Your task to perform on an android device: Open my contact list Image 0: 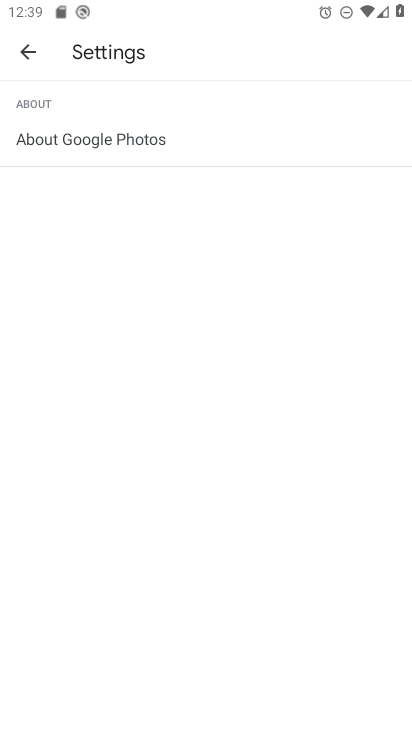
Step 0: press home button
Your task to perform on an android device: Open my contact list Image 1: 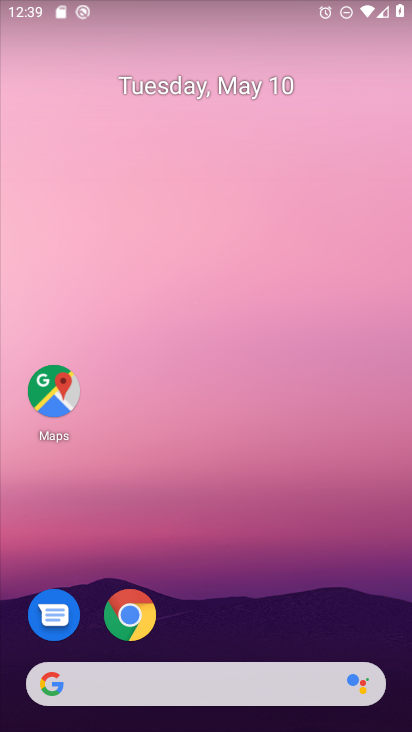
Step 1: drag from (226, 717) to (271, 99)
Your task to perform on an android device: Open my contact list Image 2: 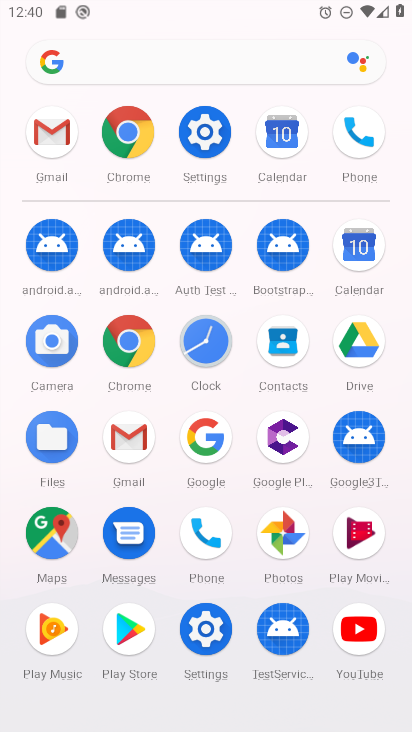
Step 2: click (194, 531)
Your task to perform on an android device: Open my contact list Image 3: 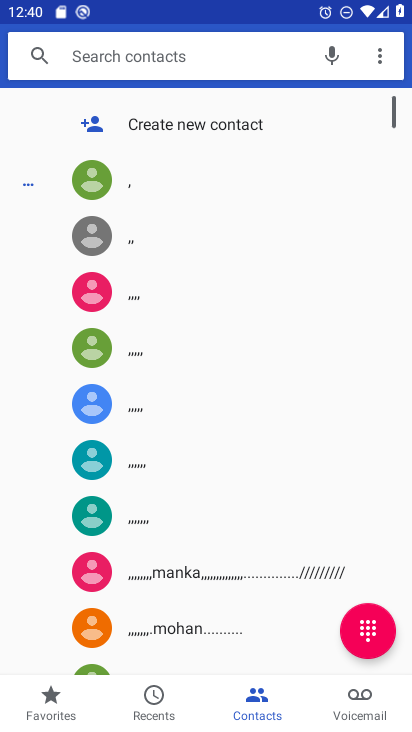
Step 3: task complete